Your task to perform on an android device: find snoozed emails in the gmail app Image 0: 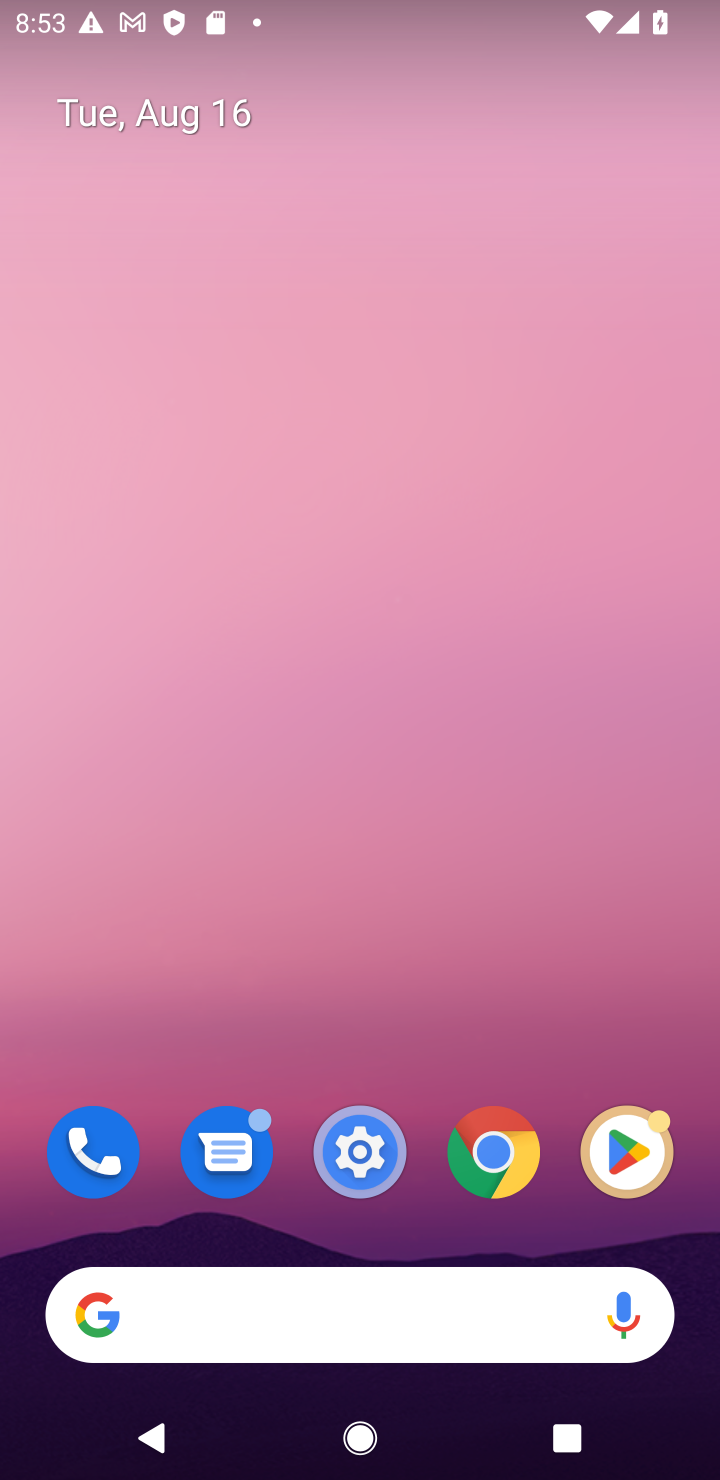
Step 0: drag from (210, 1256) to (467, 112)
Your task to perform on an android device: find snoozed emails in the gmail app Image 1: 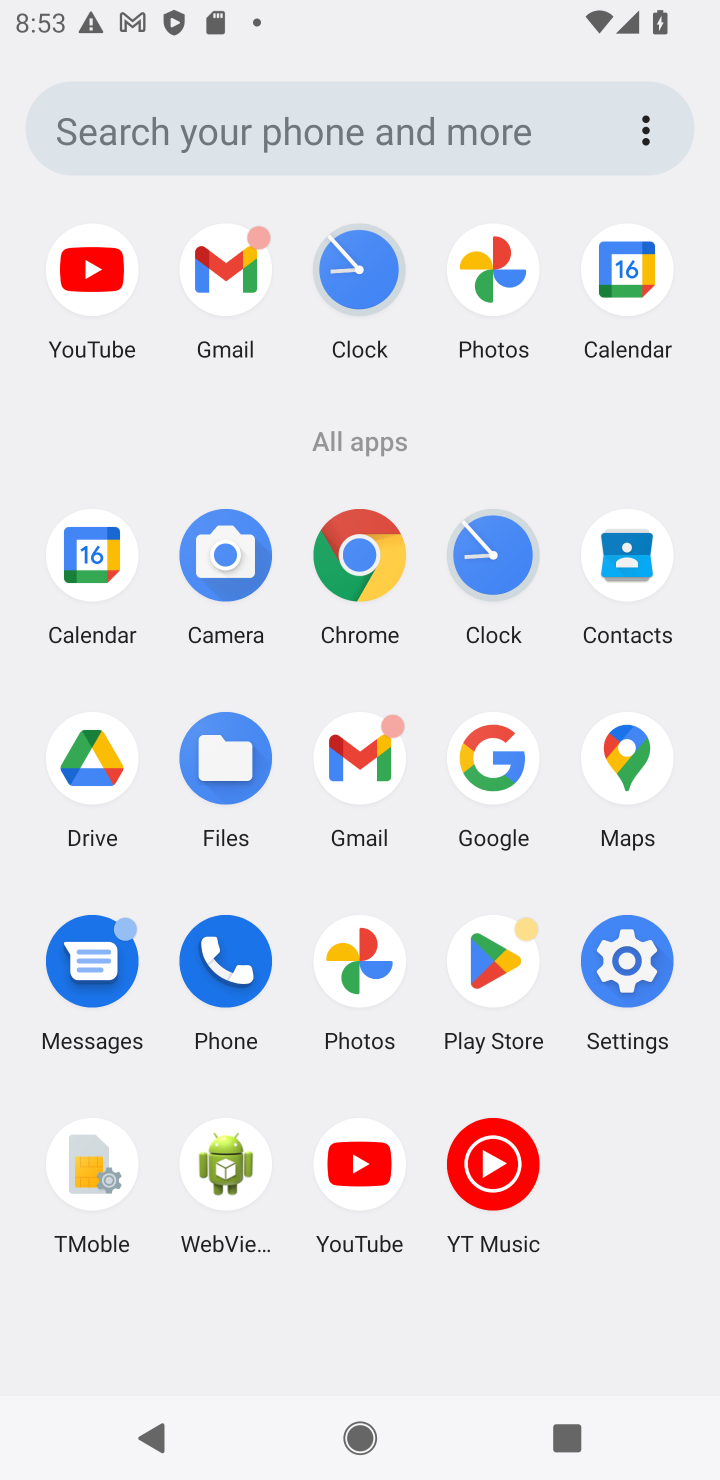
Step 1: click (361, 770)
Your task to perform on an android device: find snoozed emails in the gmail app Image 2: 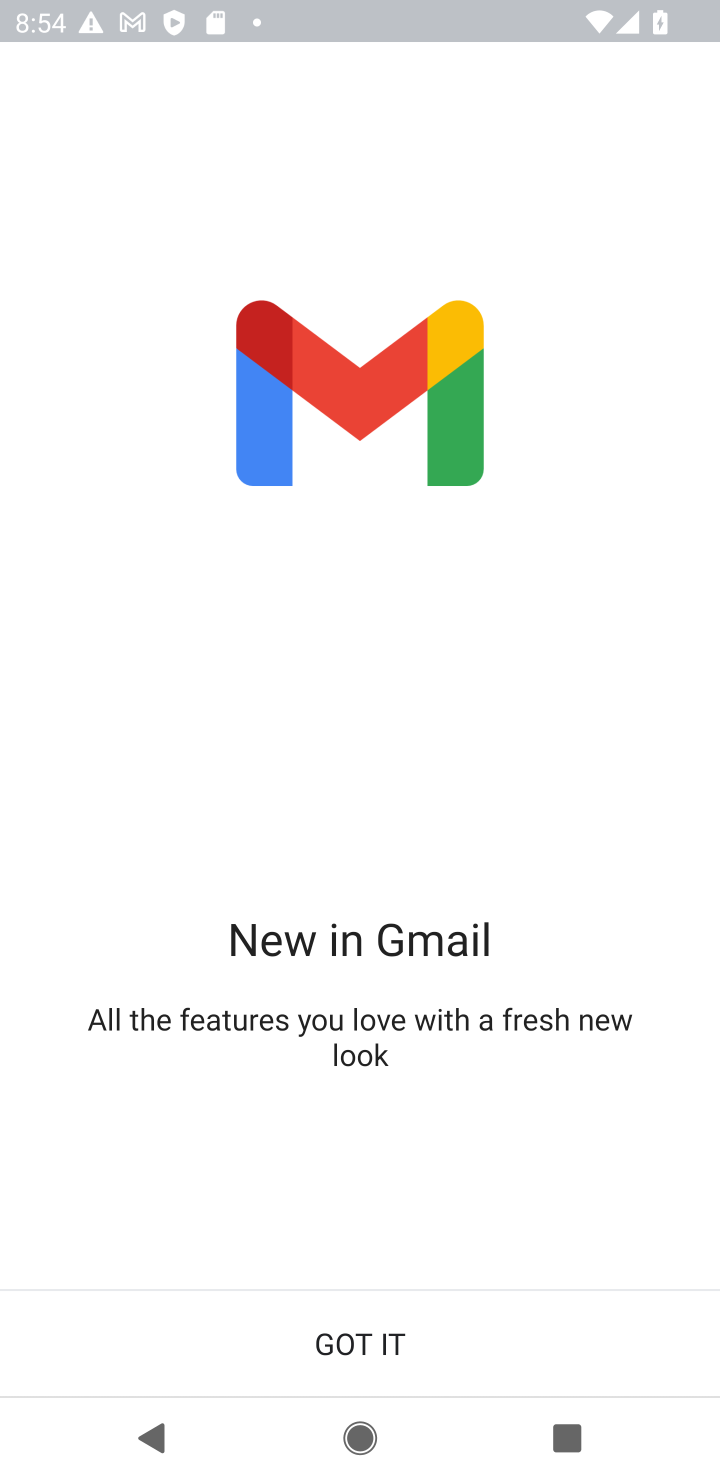
Step 2: click (341, 1340)
Your task to perform on an android device: find snoozed emails in the gmail app Image 3: 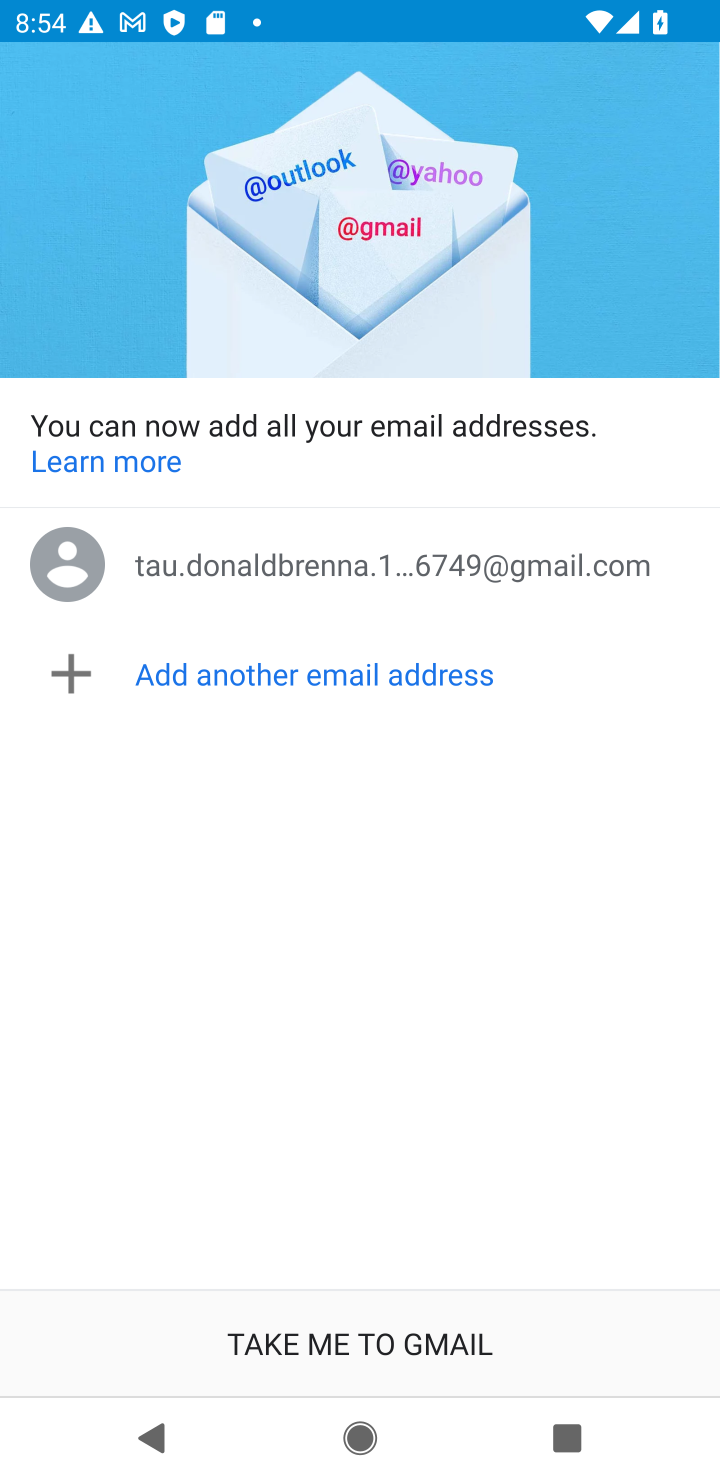
Step 3: click (457, 1330)
Your task to perform on an android device: find snoozed emails in the gmail app Image 4: 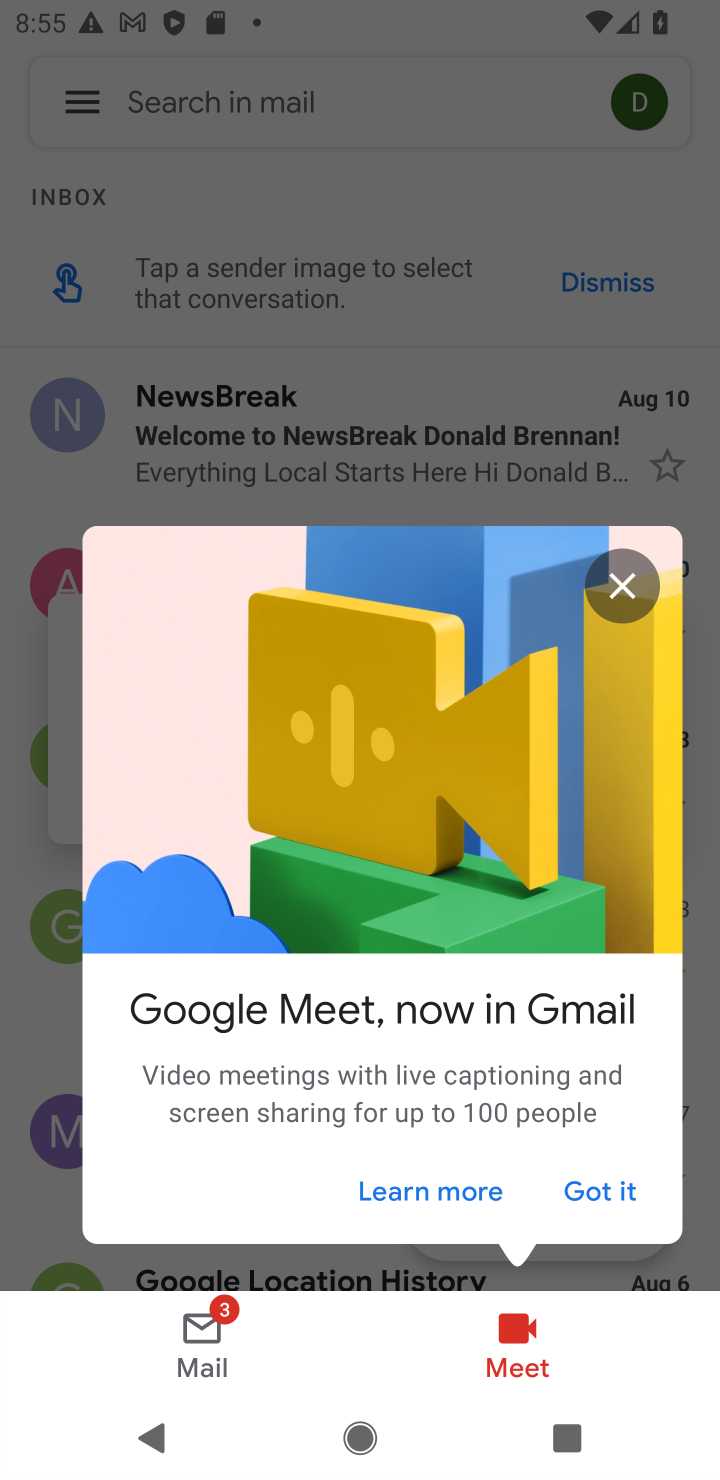
Step 4: click (633, 1169)
Your task to perform on an android device: find snoozed emails in the gmail app Image 5: 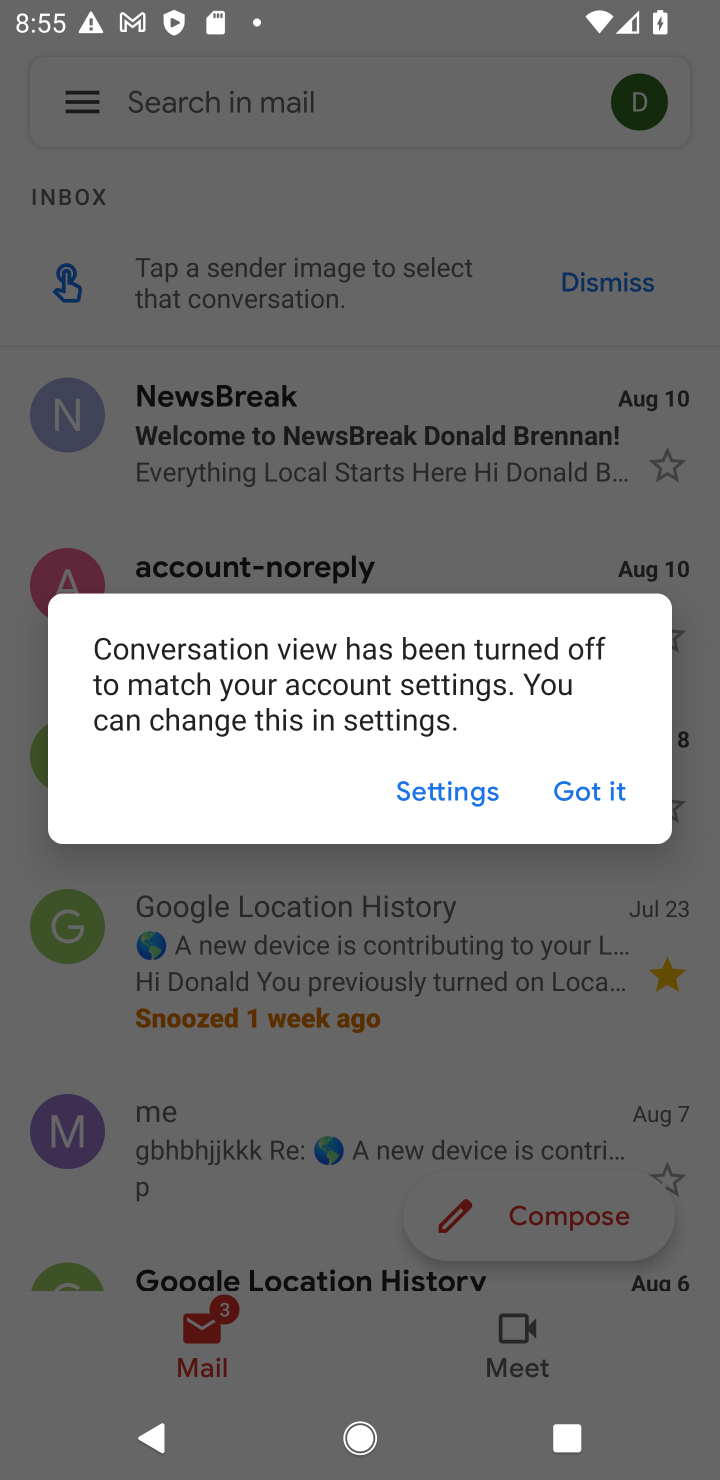
Step 5: click (593, 782)
Your task to perform on an android device: find snoozed emails in the gmail app Image 6: 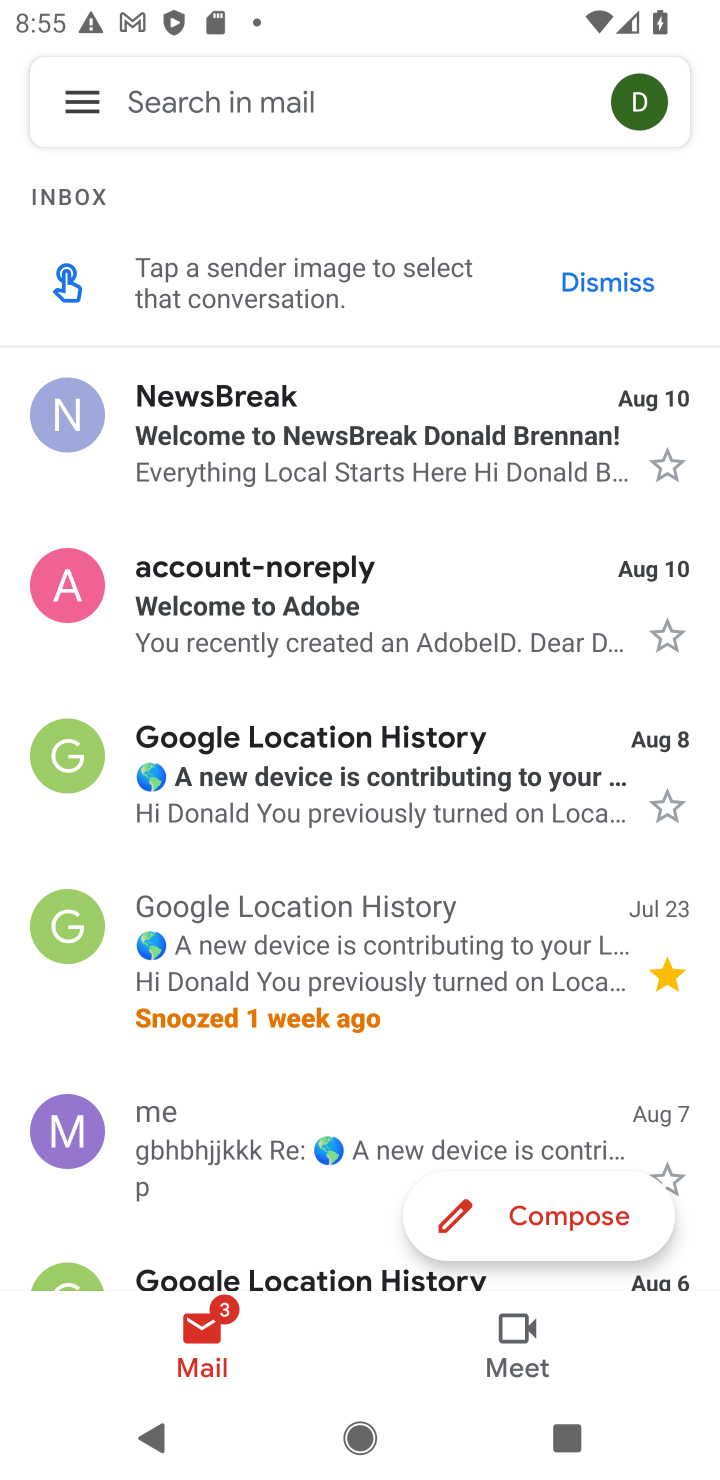
Step 6: click (103, 113)
Your task to perform on an android device: find snoozed emails in the gmail app Image 7: 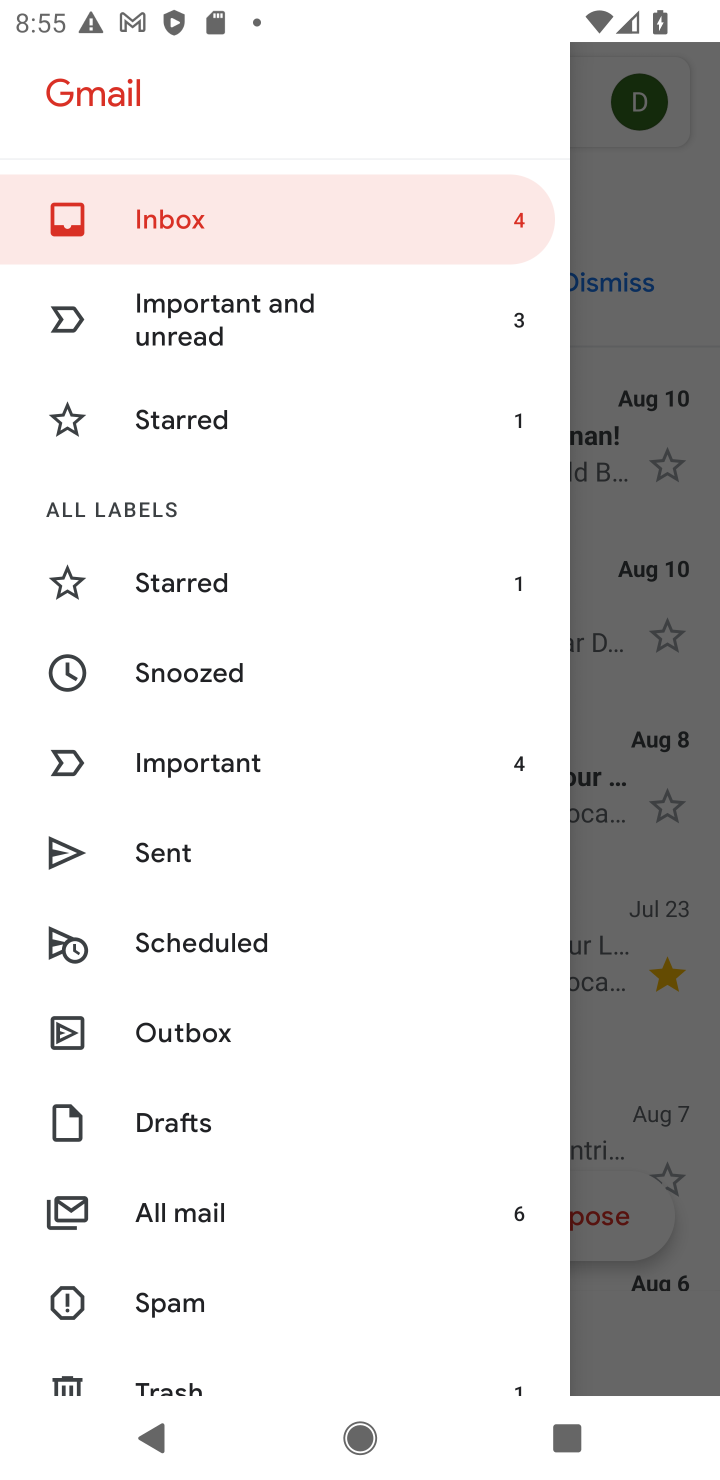
Step 7: click (216, 649)
Your task to perform on an android device: find snoozed emails in the gmail app Image 8: 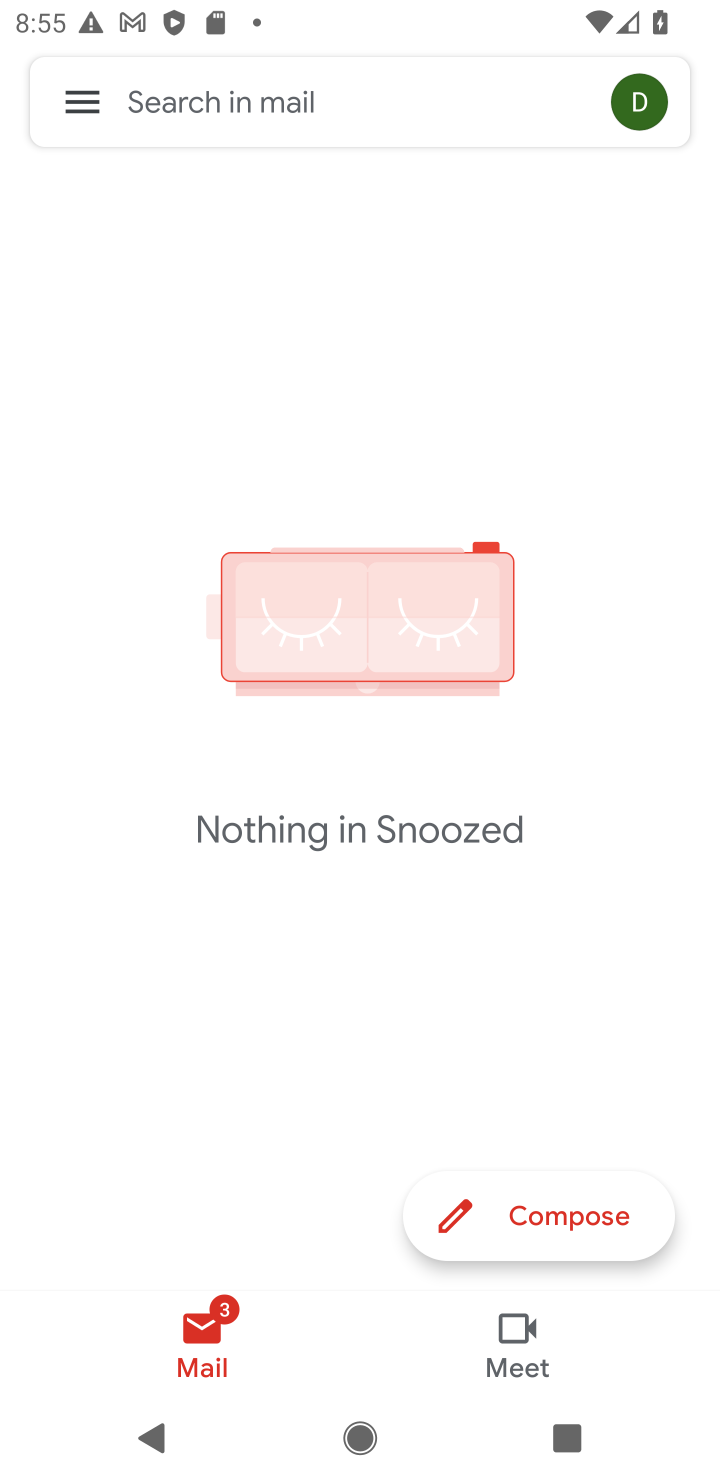
Step 8: task complete